Your task to perform on an android device: Open ESPN.com Image 0: 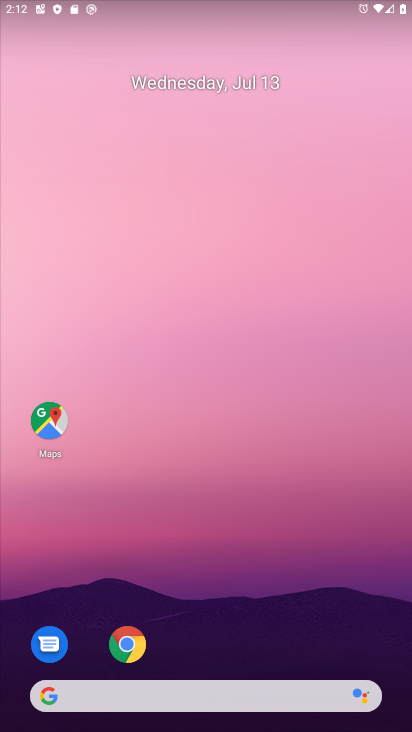
Step 0: click (140, 648)
Your task to perform on an android device: Open ESPN.com Image 1: 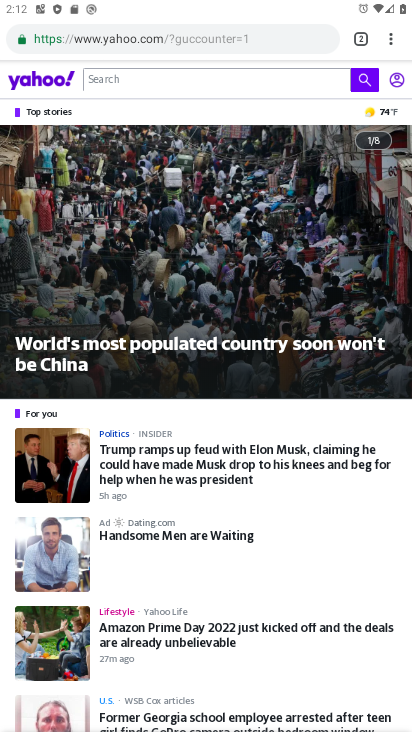
Step 1: click (360, 37)
Your task to perform on an android device: Open ESPN.com Image 2: 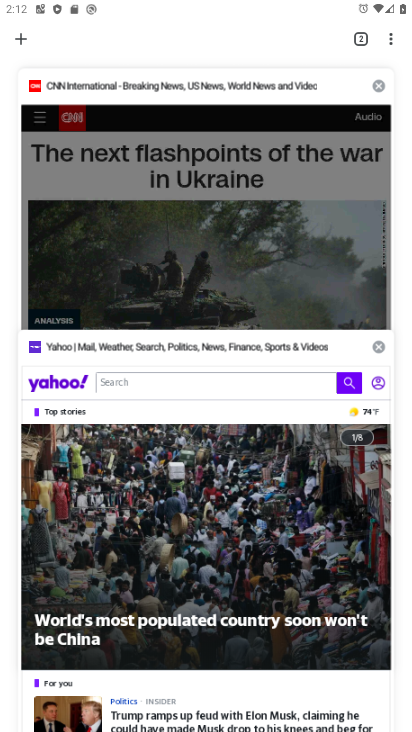
Step 2: click (21, 34)
Your task to perform on an android device: Open ESPN.com Image 3: 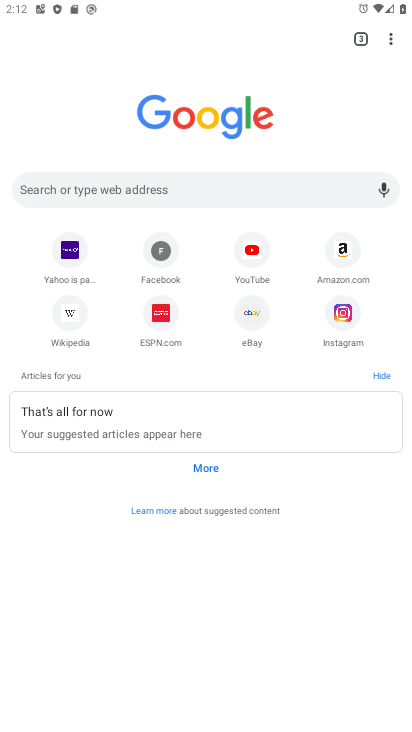
Step 3: click (155, 316)
Your task to perform on an android device: Open ESPN.com Image 4: 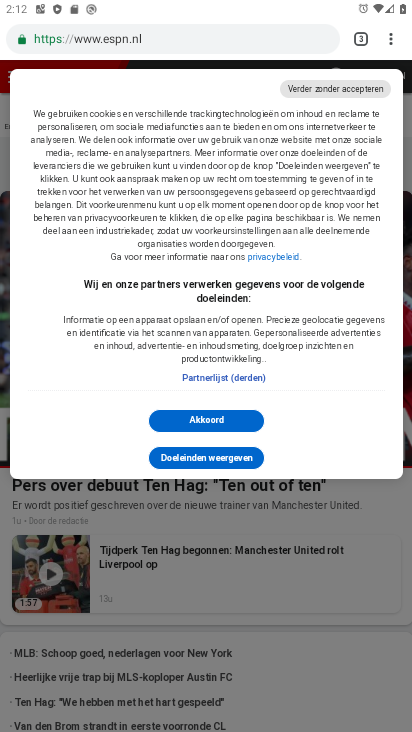
Step 4: click (182, 419)
Your task to perform on an android device: Open ESPN.com Image 5: 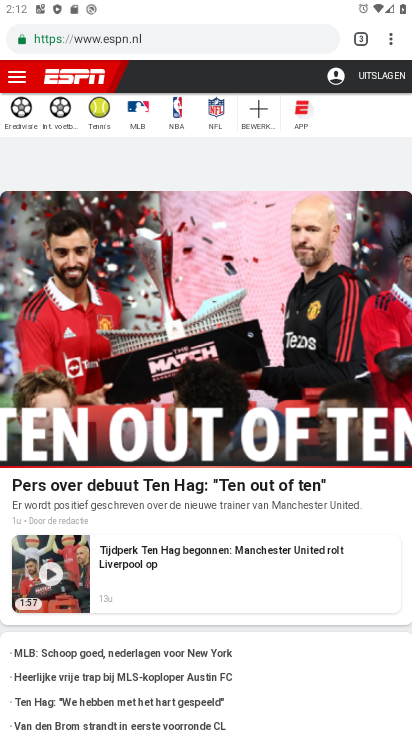
Step 5: task complete